Your task to perform on an android device: Set the phone to "Do not disturb". Image 0: 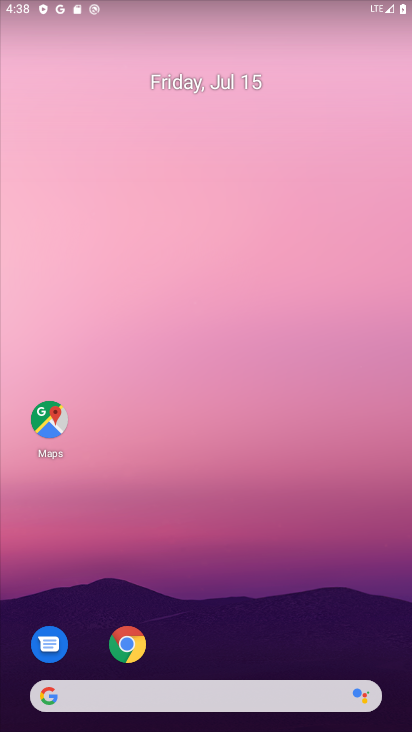
Step 0: drag from (277, 2) to (250, 629)
Your task to perform on an android device: Set the phone to "Do not disturb". Image 1: 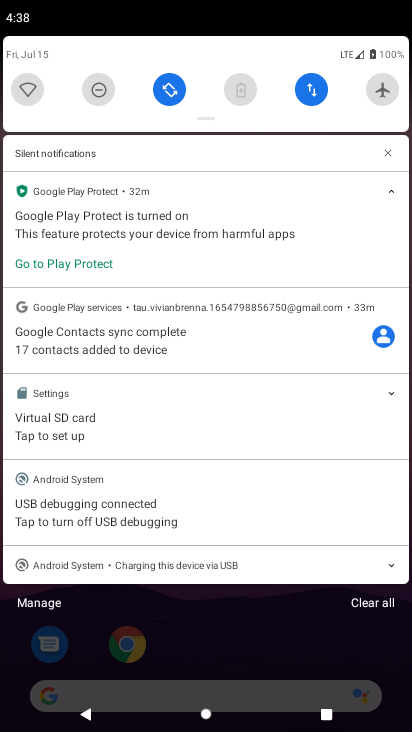
Step 1: drag from (211, 118) to (201, 461)
Your task to perform on an android device: Set the phone to "Do not disturb". Image 2: 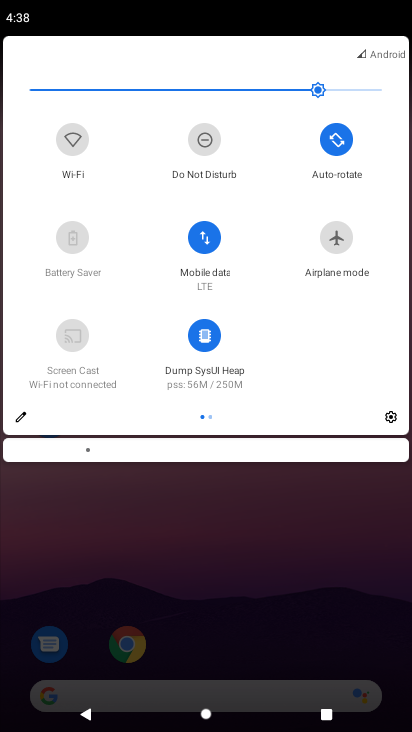
Step 2: drag from (318, 330) to (69, 371)
Your task to perform on an android device: Set the phone to "Do not disturb". Image 3: 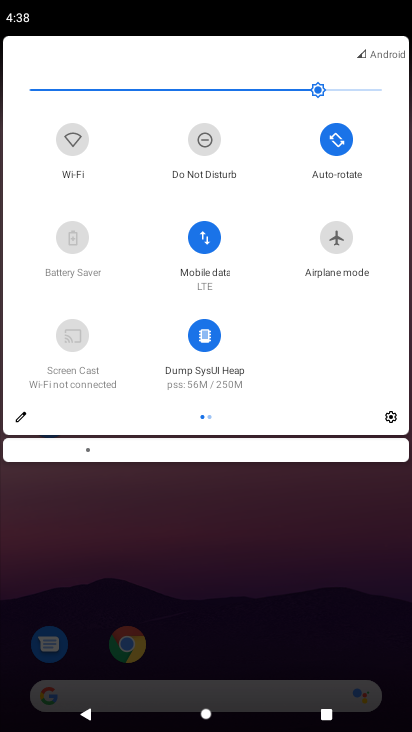
Step 3: drag from (299, 313) to (49, 331)
Your task to perform on an android device: Set the phone to "Do not disturb". Image 4: 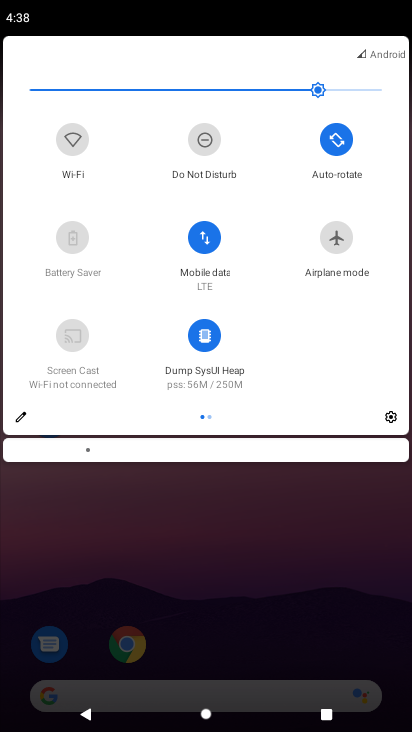
Step 4: click (205, 139)
Your task to perform on an android device: Set the phone to "Do not disturb". Image 5: 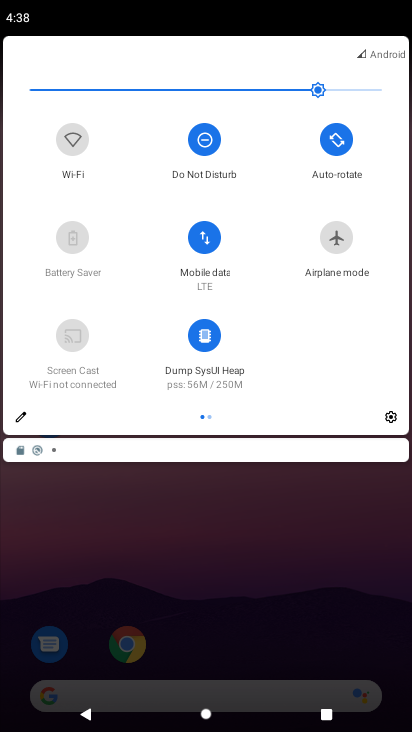
Step 5: task complete